Your task to perform on an android device: stop showing notifications on the lock screen Image 0: 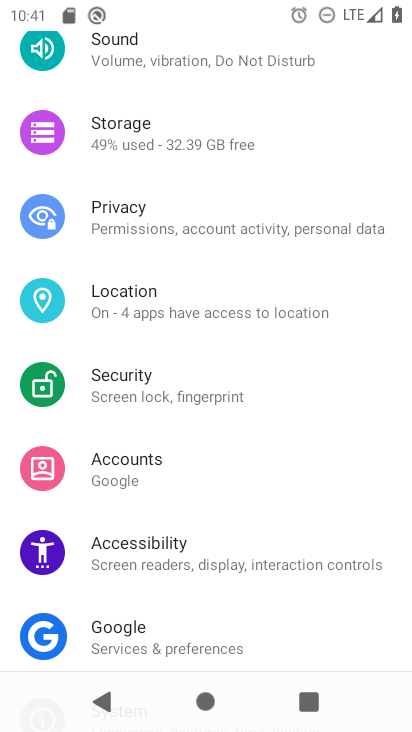
Step 0: drag from (234, 192) to (222, 543)
Your task to perform on an android device: stop showing notifications on the lock screen Image 1: 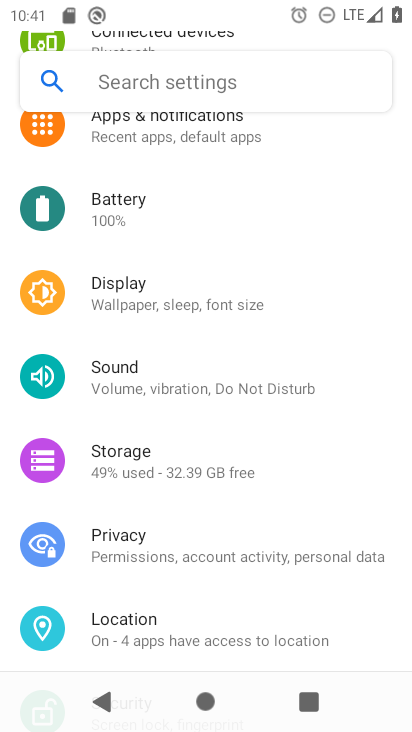
Step 1: click (222, 130)
Your task to perform on an android device: stop showing notifications on the lock screen Image 2: 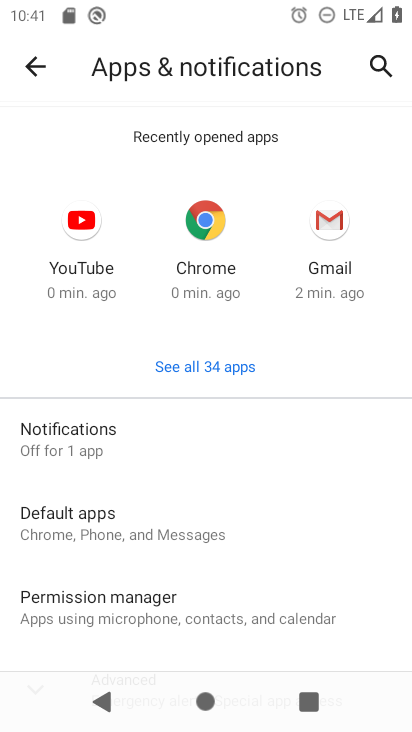
Step 2: click (194, 430)
Your task to perform on an android device: stop showing notifications on the lock screen Image 3: 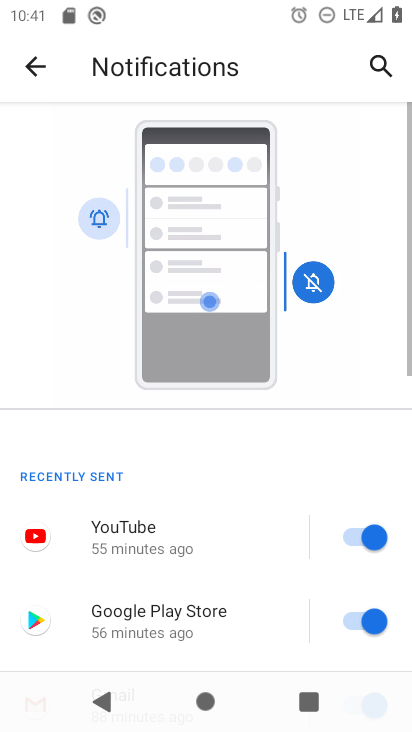
Step 3: drag from (267, 457) to (287, 116)
Your task to perform on an android device: stop showing notifications on the lock screen Image 4: 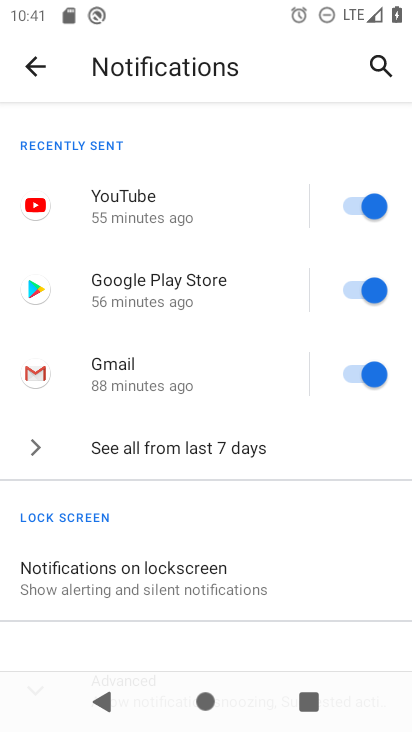
Step 4: drag from (288, 436) to (283, 222)
Your task to perform on an android device: stop showing notifications on the lock screen Image 5: 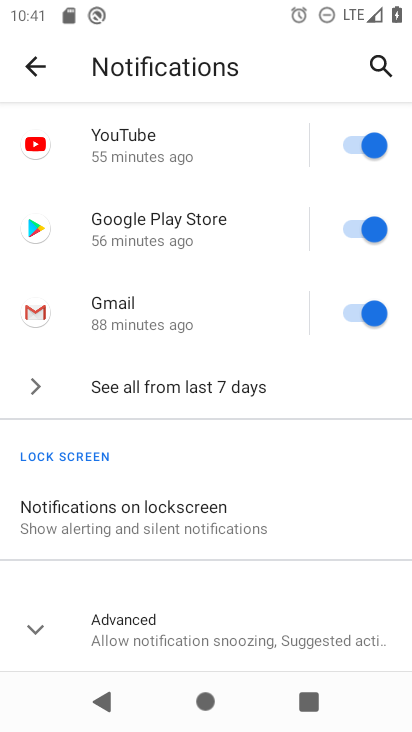
Step 5: click (175, 513)
Your task to perform on an android device: stop showing notifications on the lock screen Image 6: 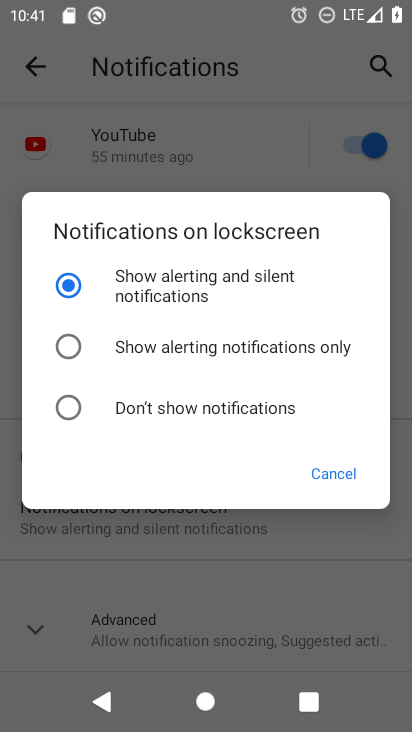
Step 6: click (64, 403)
Your task to perform on an android device: stop showing notifications on the lock screen Image 7: 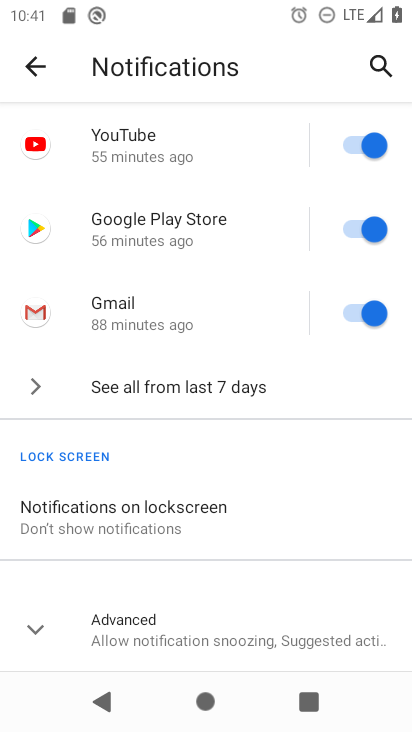
Step 7: task complete